Your task to perform on an android device: Search for razer deathadder on walmart, select the first entry, add it to the cart, then select checkout. Image 0: 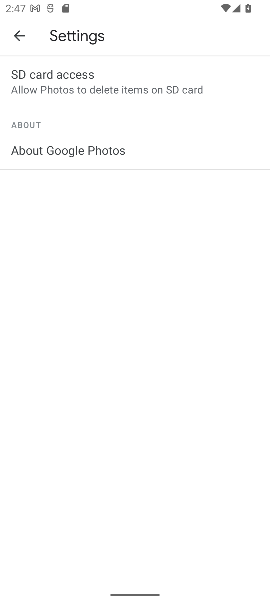
Step 0: press home button
Your task to perform on an android device: Search for razer deathadder on walmart, select the first entry, add it to the cart, then select checkout. Image 1: 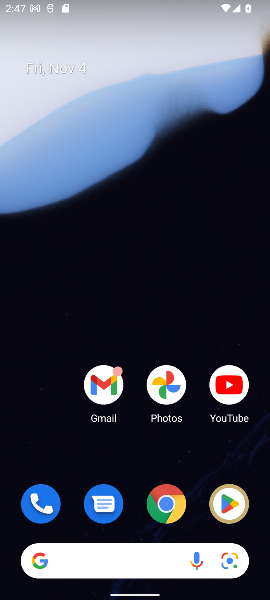
Step 1: click (165, 505)
Your task to perform on an android device: Search for razer deathadder on walmart, select the first entry, add it to the cart, then select checkout. Image 2: 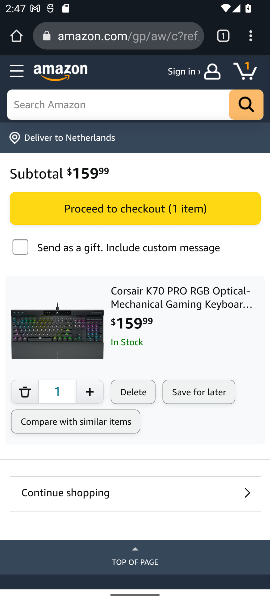
Step 2: click (108, 36)
Your task to perform on an android device: Search for razer deathadder on walmart, select the first entry, add it to the cart, then select checkout. Image 3: 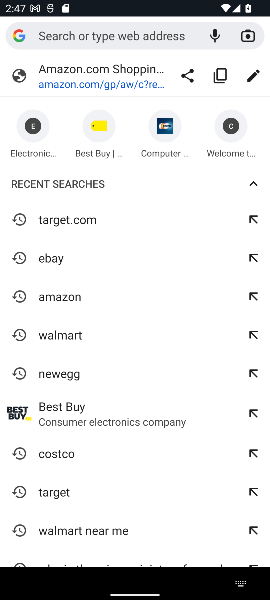
Step 3: click (48, 332)
Your task to perform on an android device: Search for razer deathadder on walmart, select the first entry, add it to the cart, then select checkout. Image 4: 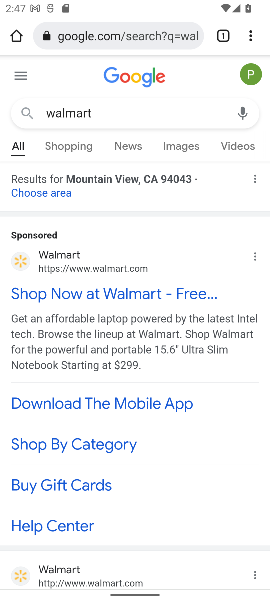
Step 4: drag from (76, 327) to (91, 158)
Your task to perform on an android device: Search for razer deathadder on walmart, select the first entry, add it to the cart, then select checkout. Image 5: 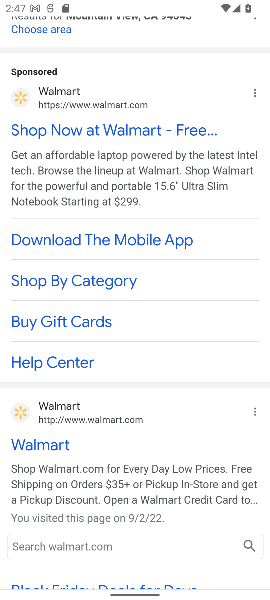
Step 5: drag from (79, 350) to (92, 255)
Your task to perform on an android device: Search for razer deathadder on walmart, select the first entry, add it to the cart, then select checkout. Image 6: 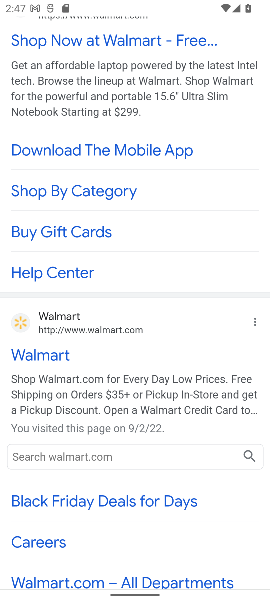
Step 6: click (51, 347)
Your task to perform on an android device: Search for razer deathadder on walmart, select the first entry, add it to the cart, then select checkout. Image 7: 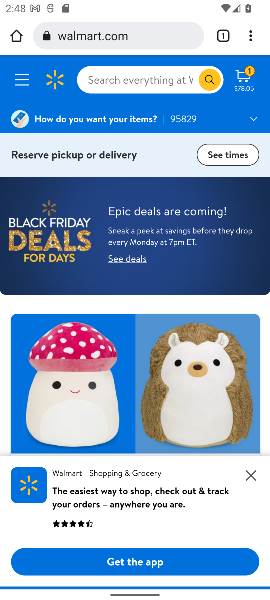
Step 7: click (126, 87)
Your task to perform on an android device: Search for razer deathadder on walmart, select the first entry, add it to the cart, then select checkout. Image 8: 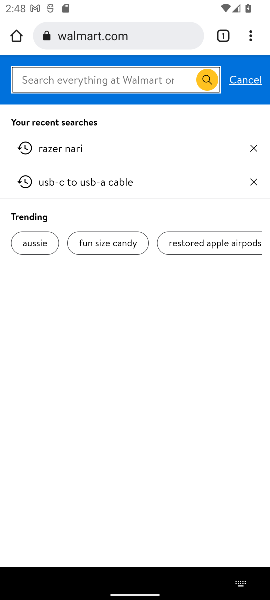
Step 8: type "razer deathadder "
Your task to perform on an android device: Search for razer deathadder on walmart, select the first entry, add it to the cart, then select checkout. Image 9: 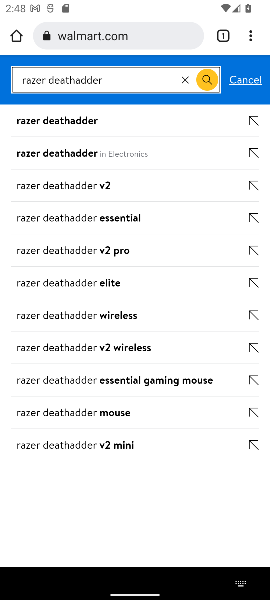
Step 9: click (59, 125)
Your task to perform on an android device: Search for razer deathadder on walmart, select the first entry, add it to the cart, then select checkout. Image 10: 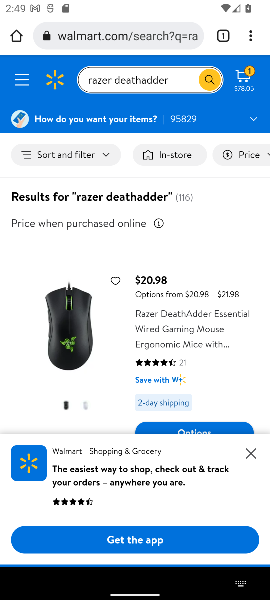
Step 10: click (146, 337)
Your task to perform on an android device: Search for razer deathadder on walmart, select the first entry, add it to the cart, then select checkout. Image 11: 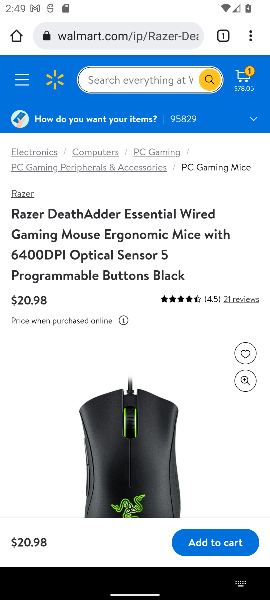
Step 11: drag from (150, 391) to (156, 240)
Your task to perform on an android device: Search for razer deathadder on walmart, select the first entry, add it to the cart, then select checkout. Image 12: 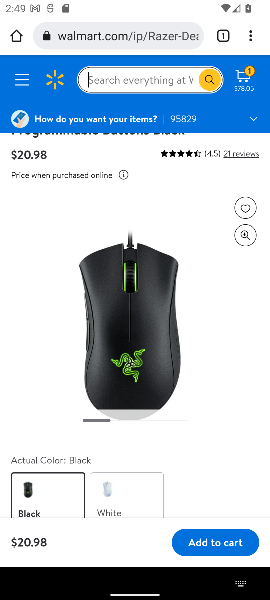
Step 12: click (207, 546)
Your task to perform on an android device: Search for razer deathadder on walmart, select the first entry, add it to the cart, then select checkout. Image 13: 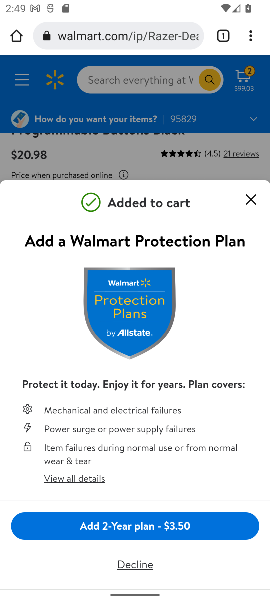
Step 13: click (248, 202)
Your task to perform on an android device: Search for razer deathadder on walmart, select the first entry, add it to the cart, then select checkout. Image 14: 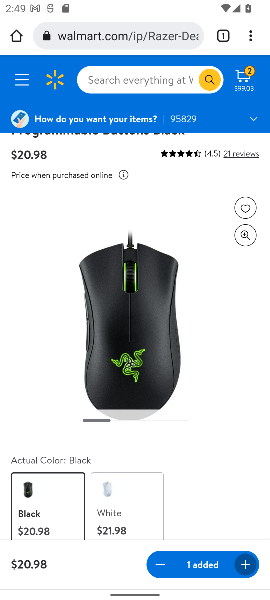
Step 14: click (241, 82)
Your task to perform on an android device: Search for razer deathadder on walmart, select the first entry, add it to the cart, then select checkout. Image 15: 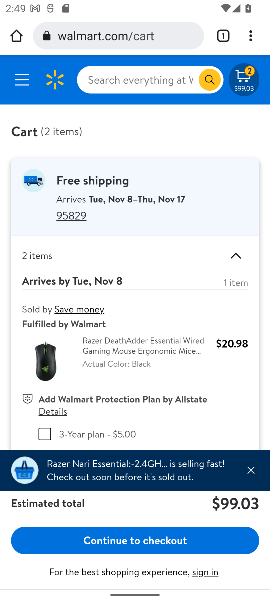
Step 15: click (131, 541)
Your task to perform on an android device: Search for razer deathadder on walmart, select the first entry, add it to the cart, then select checkout. Image 16: 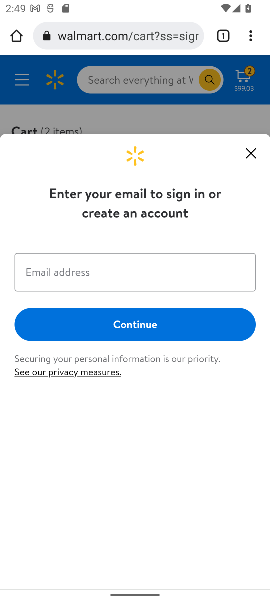
Step 16: task complete